Your task to perform on an android device: delete browsing data in the chrome app Image 0: 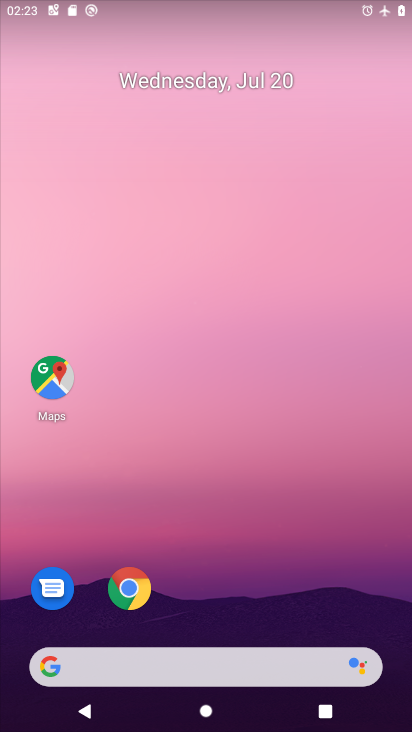
Step 0: drag from (212, 543) to (252, 233)
Your task to perform on an android device: delete browsing data in the chrome app Image 1: 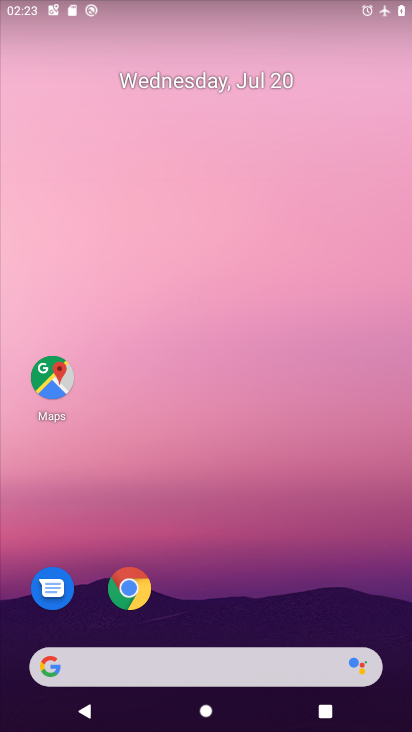
Step 1: click (141, 597)
Your task to perform on an android device: delete browsing data in the chrome app Image 2: 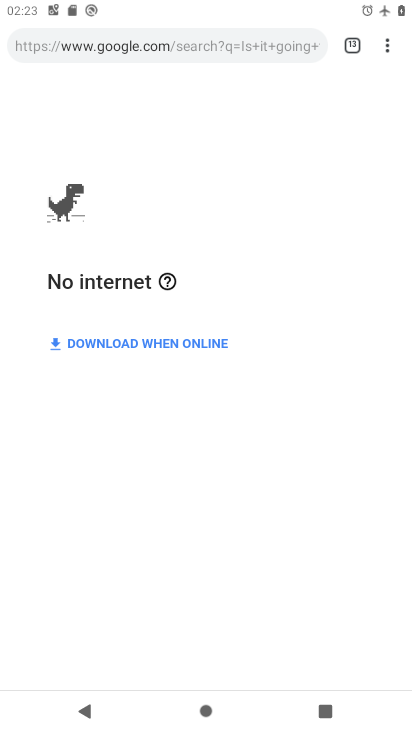
Step 2: click (392, 30)
Your task to perform on an android device: delete browsing data in the chrome app Image 3: 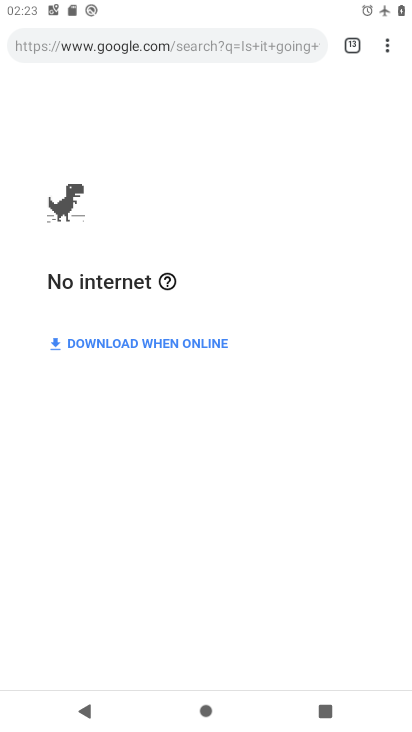
Step 3: click (388, 45)
Your task to perform on an android device: delete browsing data in the chrome app Image 4: 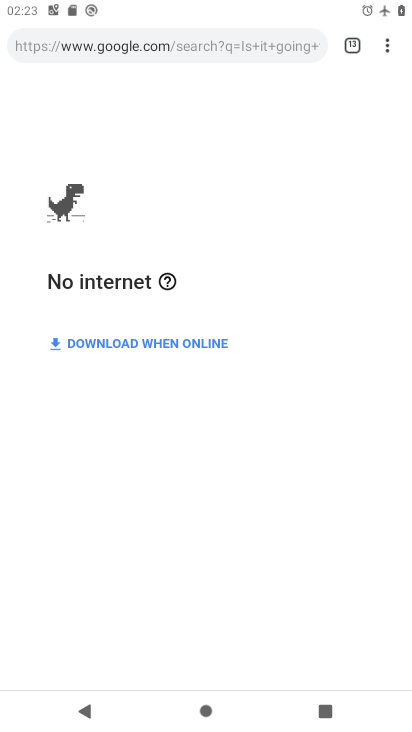
Step 4: click (388, 45)
Your task to perform on an android device: delete browsing data in the chrome app Image 5: 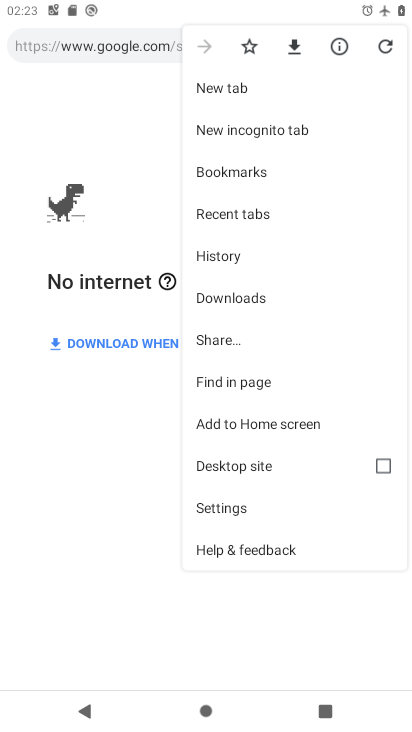
Step 5: click (249, 507)
Your task to perform on an android device: delete browsing data in the chrome app Image 6: 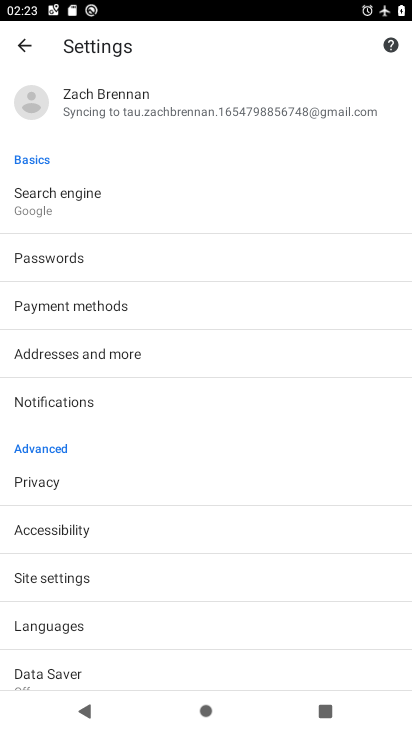
Step 6: click (78, 467)
Your task to perform on an android device: delete browsing data in the chrome app Image 7: 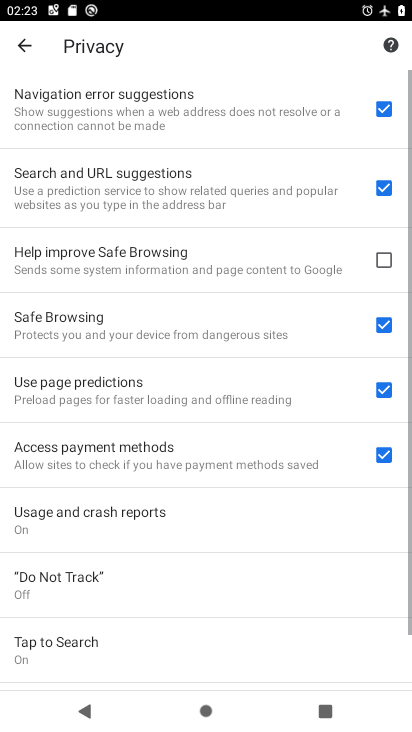
Step 7: drag from (211, 601) to (204, 125)
Your task to perform on an android device: delete browsing data in the chrome app Image 8: 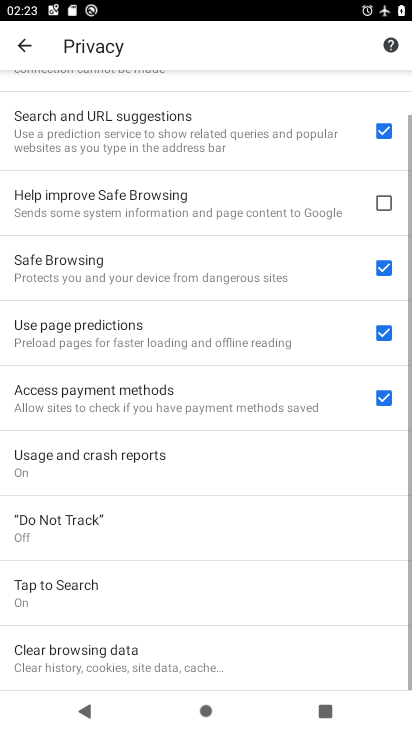
Step 8: click (175, 312)
Your task to perform on an android device: delete browsing data in the chrome app Image 9: 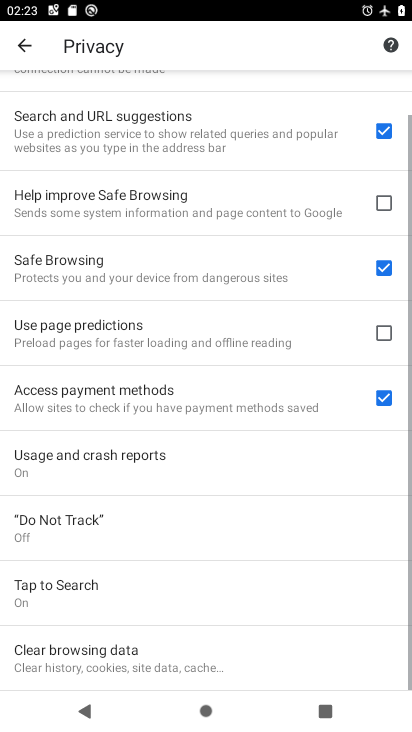
Step 9: click (133, 632)
Your task to perform on an android device: delete browsing data in the chrome app Image 10: 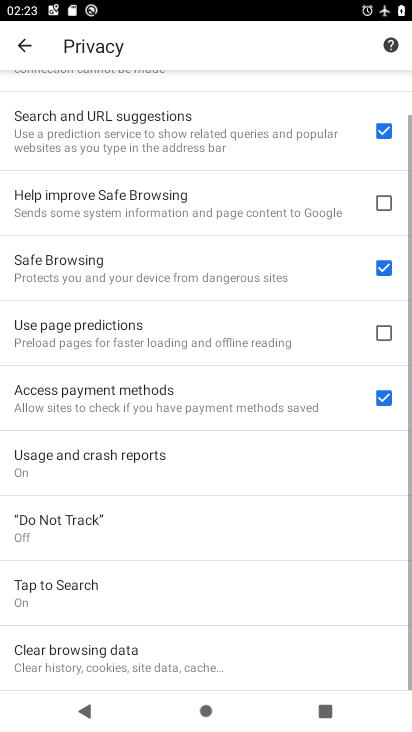
Step 10: click (133, 632)
Your task to perform on an android device: delete browsing data in the chrome app Image 11: 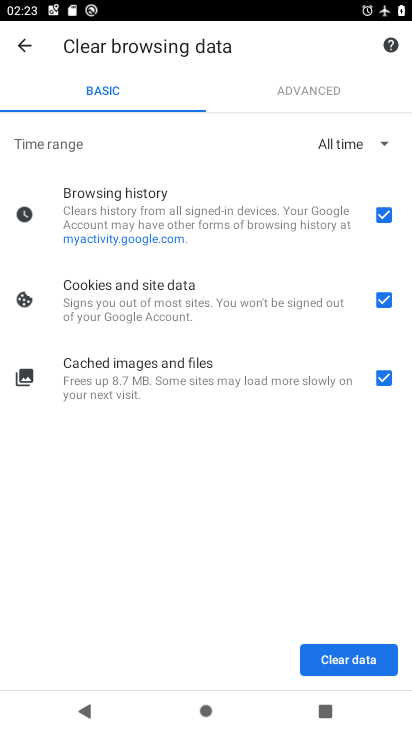
Step 11: click (346, 656)
Your task to perform on an android device: delete browsing data in the chrome app Image 12: 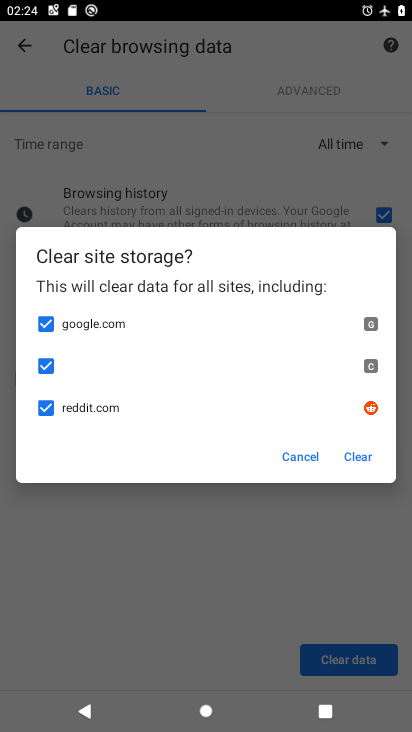
Step 12: click (349, 454)
Your task to perform on an android device: delete browsing data in the chrome app Image 13: 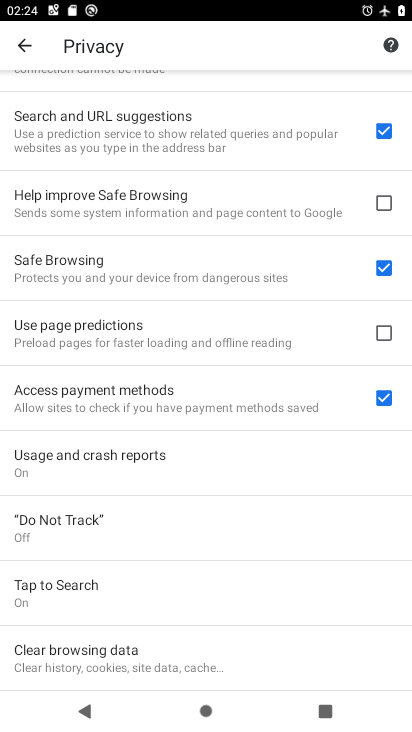
Step 13: task complete